Your task to perform on an android device: change timer sound Image 0: 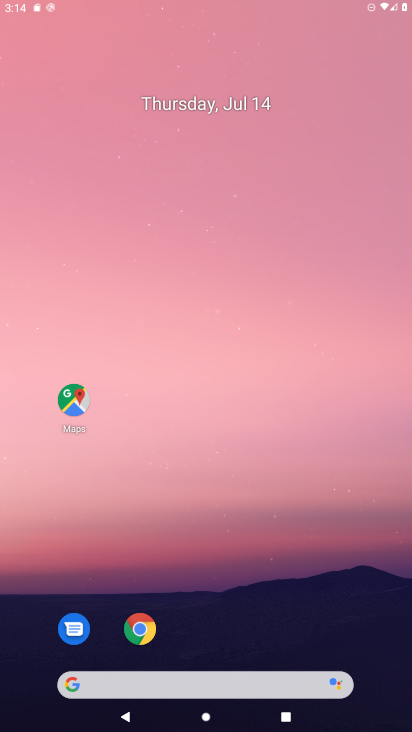
Step 0: press home button
Your task to perform on an android device: change timer sound Image 1: 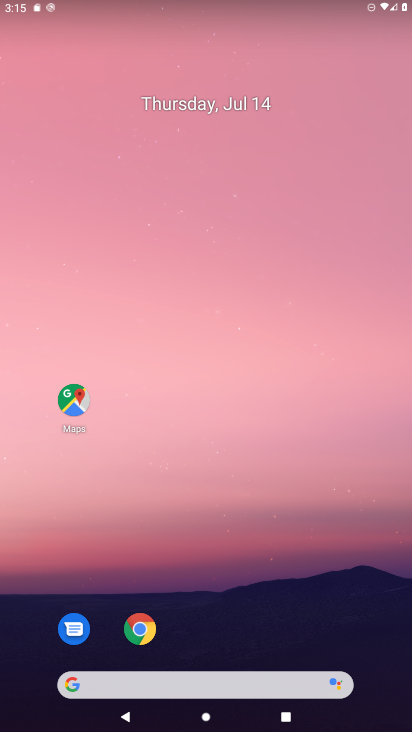
Step 1: drag from (210, 659) to (195, 236)
Your task to perform on an android device: change timer sound Image 2: 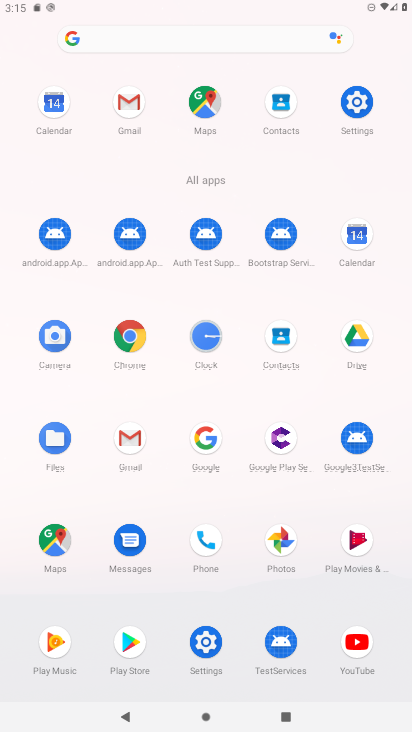
Step 2: click (209, 337)
Your task to perform on an android device: change timer sound Image 3: 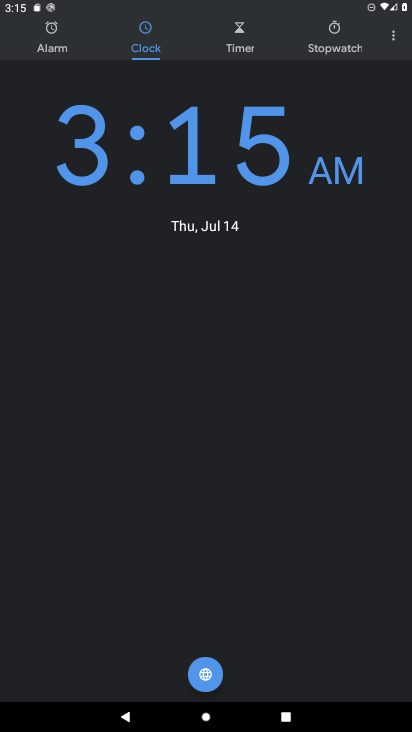
Step 3: click (390, 39)
Your task to perform on an android device: change timer sound Image 4: 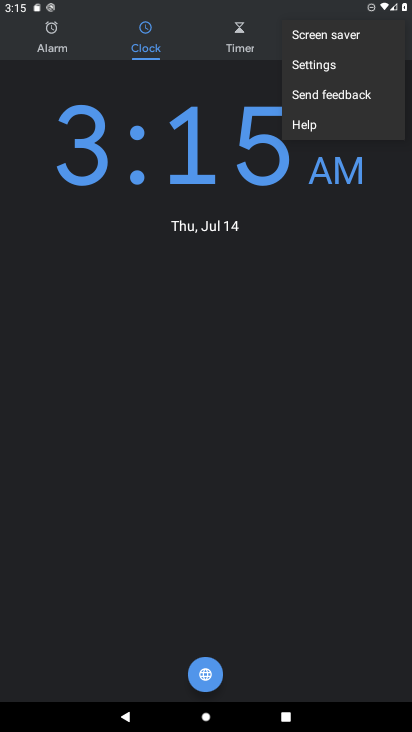
Step 4: click (348, 67)
Your task to perform on an android device: change timer sound Image 5: 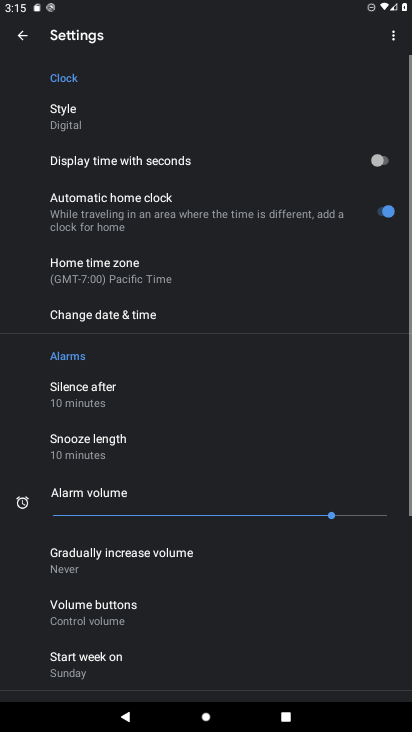
Step 5: drag from (128, 645) to (120, 163)
Your task to perform on an android device: change timer sound Image 6: 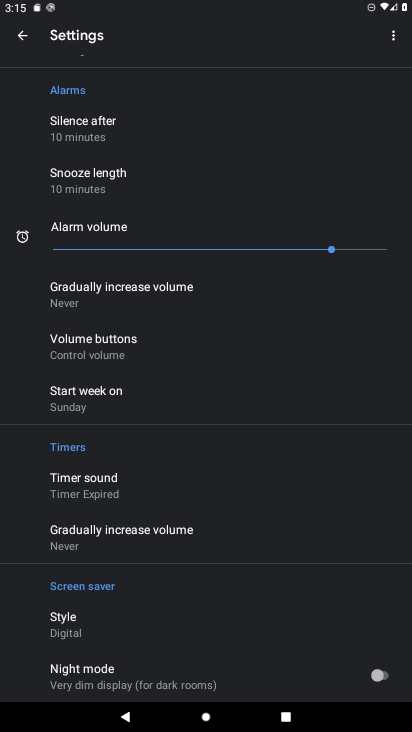
Step 6: click (119, 482)
Your task to perform on an android device: change timer sound Image 7: 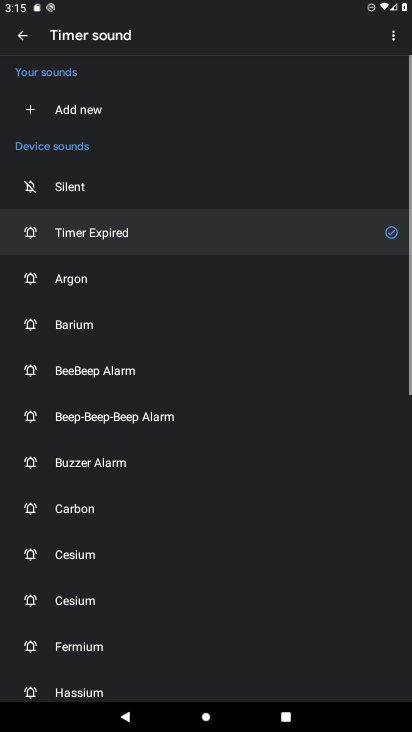
Step 7: click (127, 495)
Your task to perform on an android device: change timer sound Image 8: 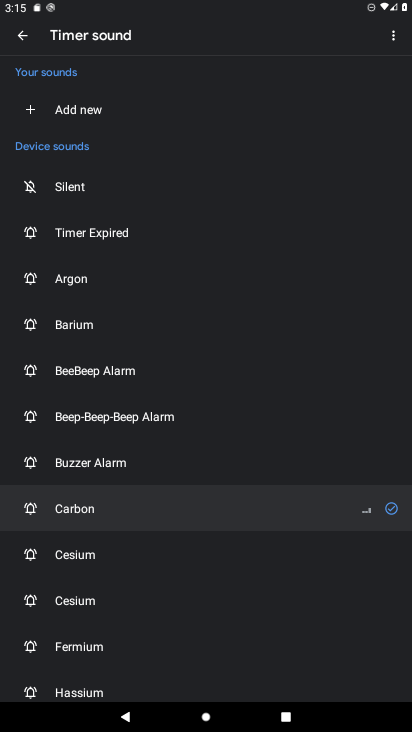
Step 8: task complete